Your task to perform on an android device: Open Youtube and go to "Your channel" Image 0: 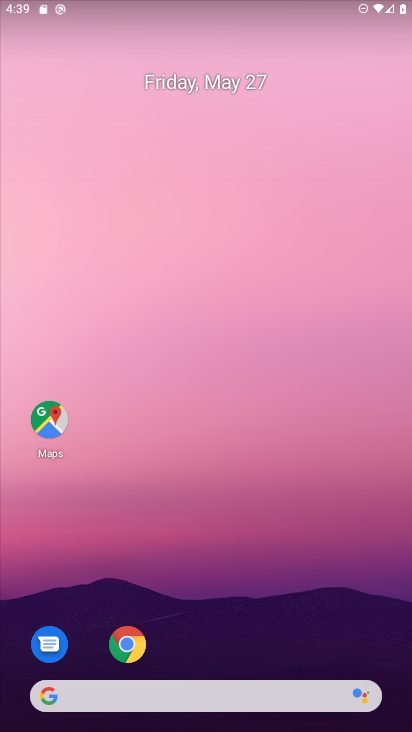
Step 0: drag from (202, 665) to (261, 46)
Your task to perform on an android device: Open Youtube and go to "Your channel" Image 1: 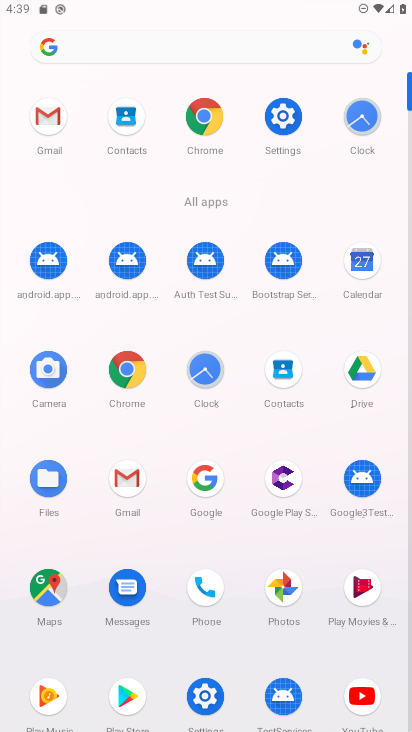
Step 1: click (367, 700)
Your task to perform on an android device: Open Youtube and go to "Your channel" Image 2: 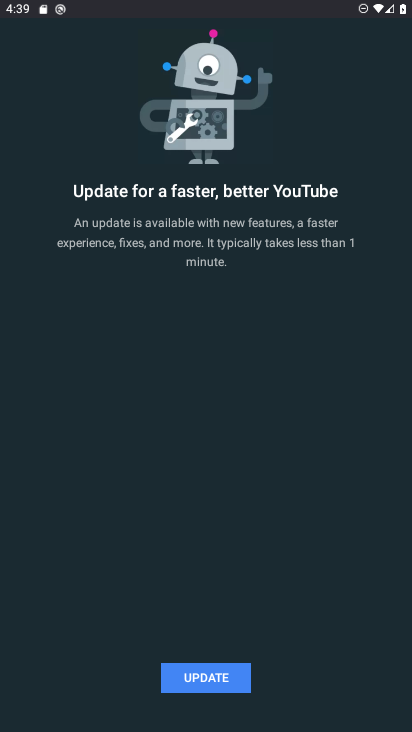
Step 2: click (211, 688)
Your task to perform on an android device: Open Youtube and go to "Your channel" Image 3: 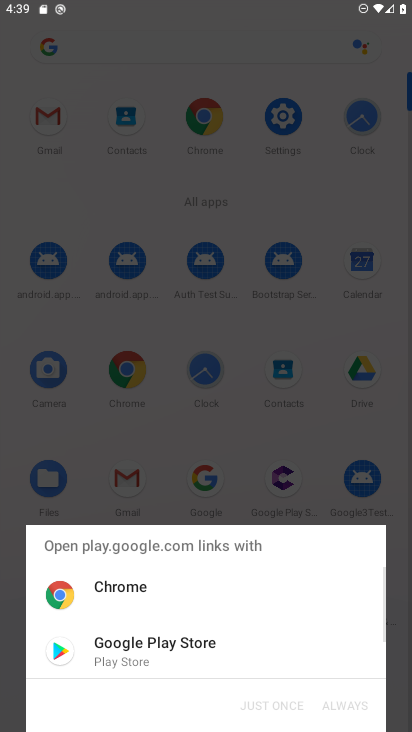
Step 3: click (48, 652)
Your task to perform on an android device: Open Youtube and go to "Your channel" Image 4: 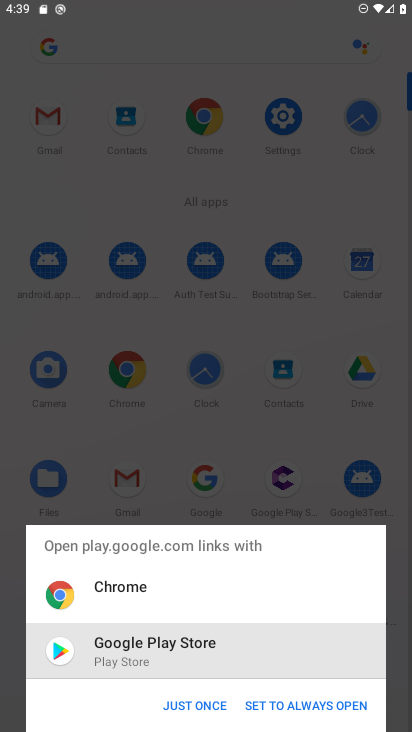
Step 4: click (184, 710)
Your task to perform on an android device: Open Youtube and go to "Your channel" Image 5: 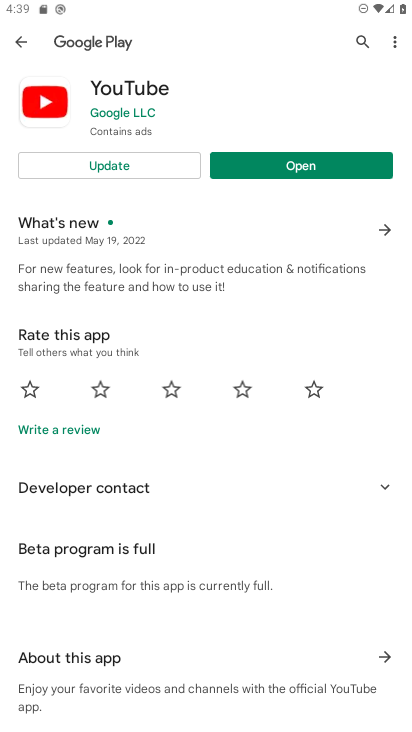
Step 5: click (83, 171)
Your task to perform on an android device: Open Youtube and go to "Your channel" Image 6: 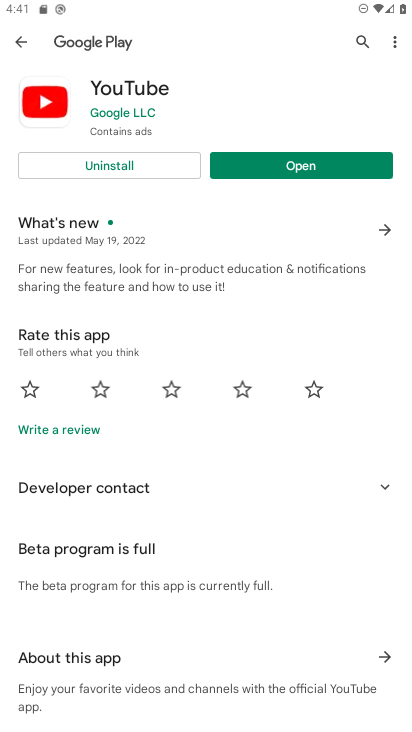
Step 6: click (256, 176)
Your task to perform on an android device: Open Youtube and go to "Your channel" Image 7: 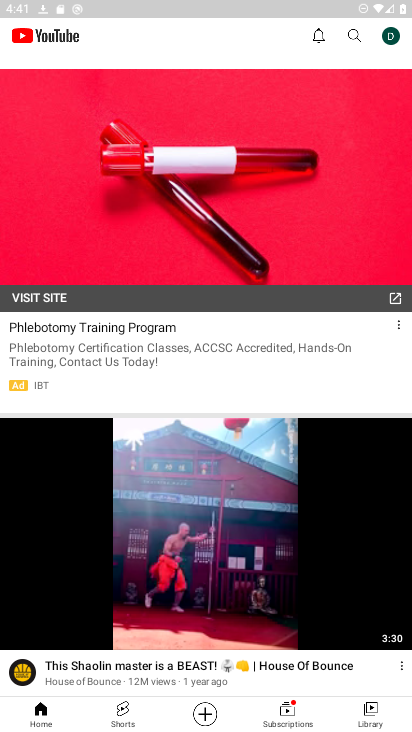
Step 7: click (351, 40)
Your task to perform on an android device: Open Youtube and go to "Your channel" Image 8: 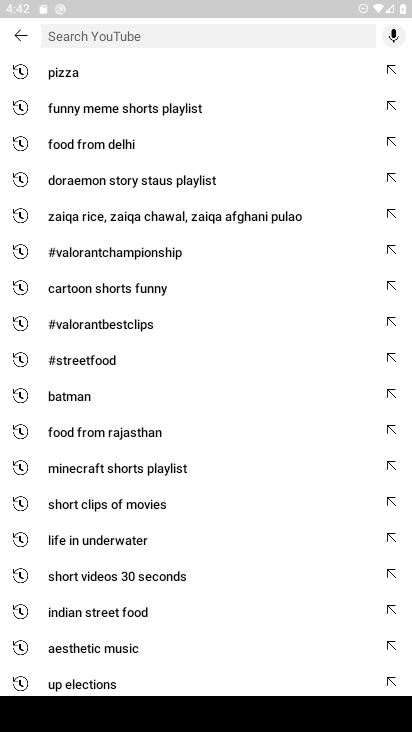
Step 8: type "your channel"
Your task to perform on an android device: Open Youtube and go to "Your channel" Image 9: 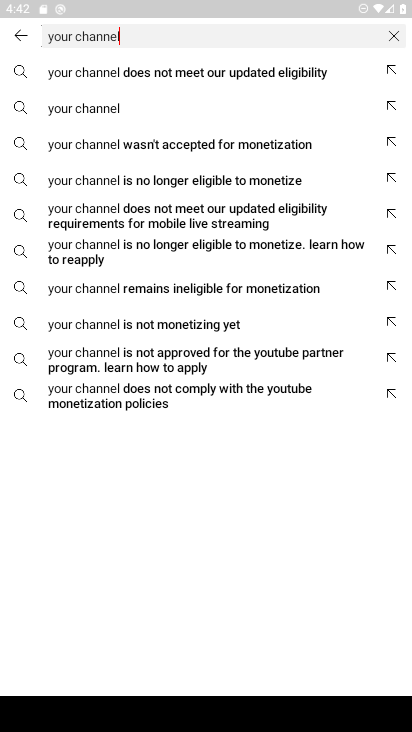
Step 9: click (144, 110)
Your task to perform on an android device: Open Youtube and go to "Your channel" Image 10: 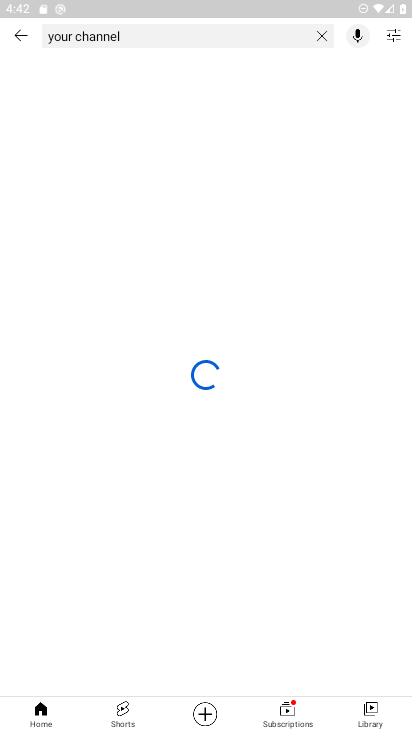
Step 10: click (114, 111)
Your task to perform on an android device: Open Youtube and go to "Your channel" Image 11: 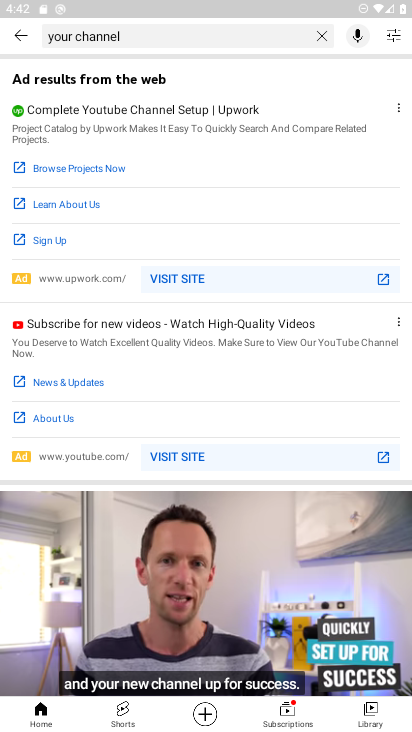
Step 11: task complete